Your task to perform on an android device: turn on the 12-hour format for clock Image 0: 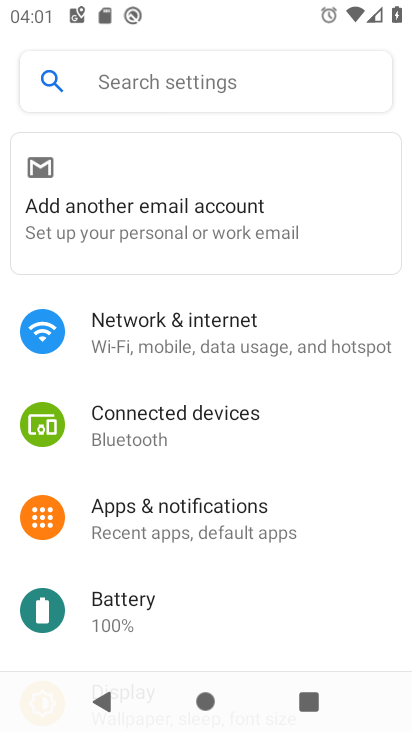
Step 0: press home button
Your task to perform on an android device: turn on the 12-hour format for clock Image 1: 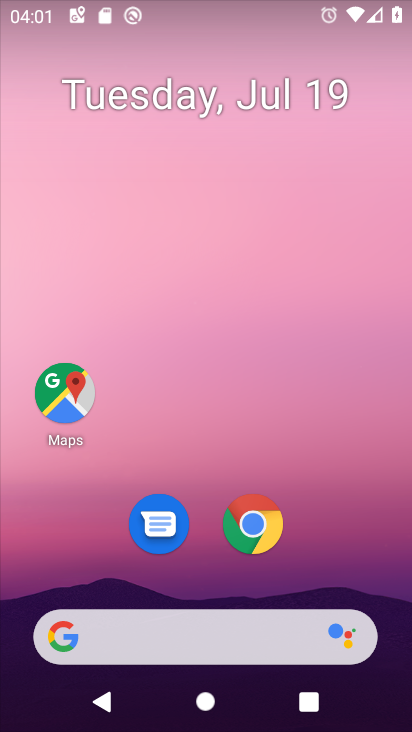
Step 1: drag from (330, 533) to (338, 111)
Your task to perform on an android device: turn on the 12-hour format for clock Image 2: 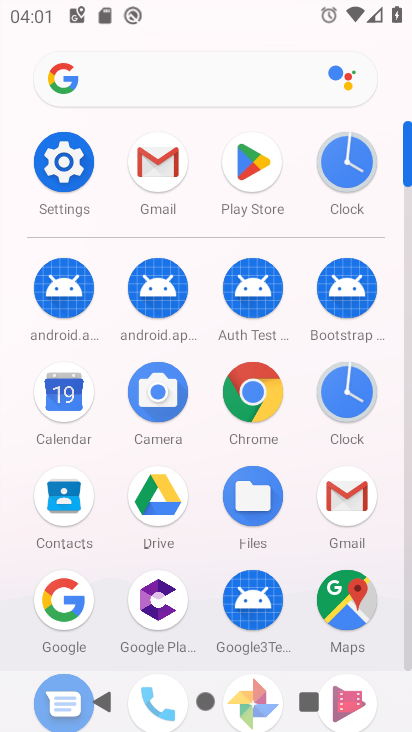
Step 2: click (344, 173)
Your task to perform on an android device: turn on the 12-hour format for clock Image 3: 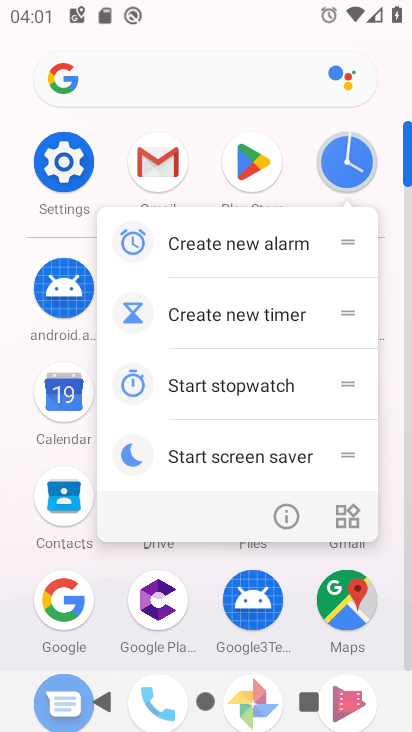
Step 3: click (344, 170)
Your task to perform on an android device: turn on the 12-hour format for clock Image 4: 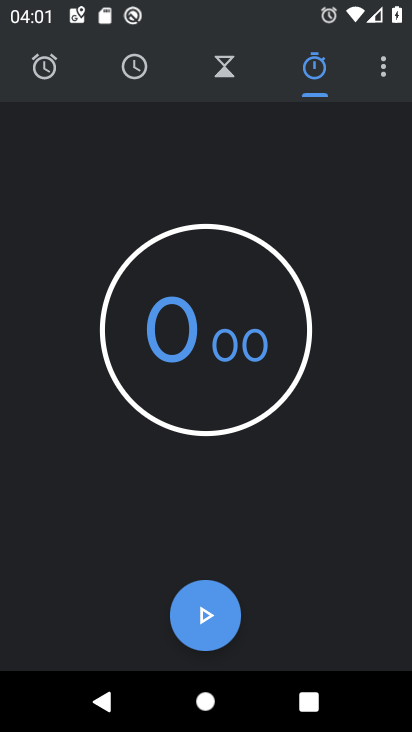
Step 4: click (387, 65)
Your task to perform on an android device: turn on the 12-hour format for clock Image 5: 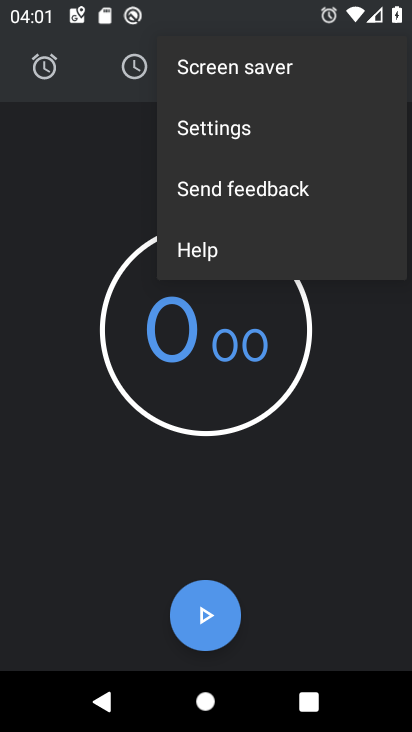
Step 5: click (304, 128)
Your task to perform on an android device: turn on the 12-hour format for clock Image 6: 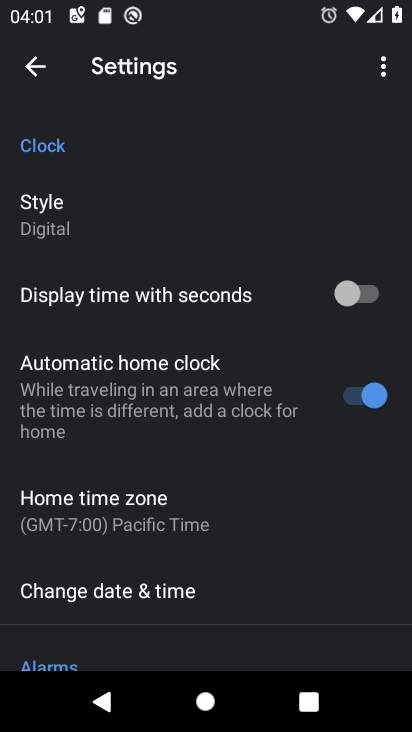
Step 6: click (267, 584)
Your task to perform on an android device: turn on the 12-hour format for clock Image 7: 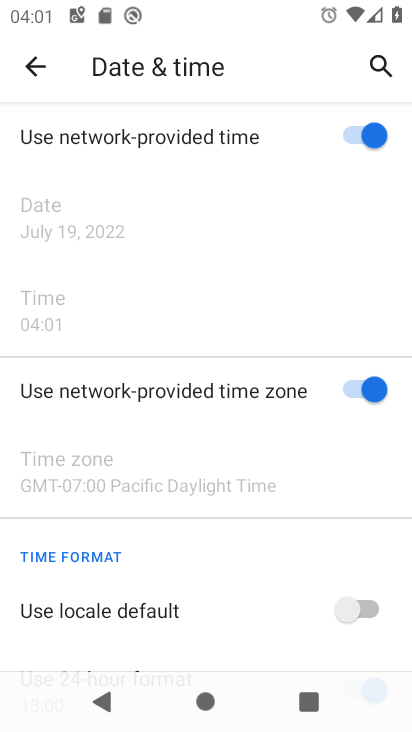
Step 7: drag from (270, 589) to (242, 332)
Your task to perform on an android device: turn on the 12-hour format for clock Image 8: 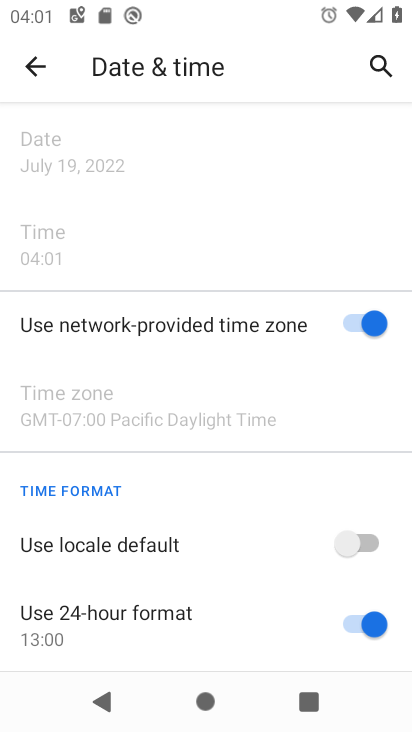
Step 8: click (361, 615)
Your task to perform on an android device: turn on the 12-hour format for clock Image 9: 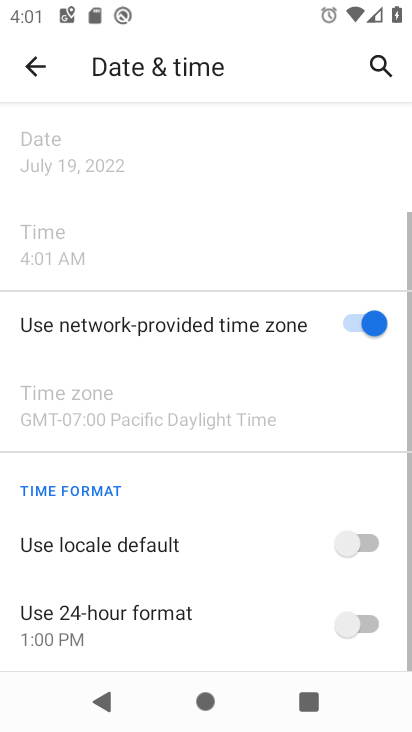
Step 9: click (361, 535)
Your task to perform on an android device: turn on the 12-hour format for clock Image 10: 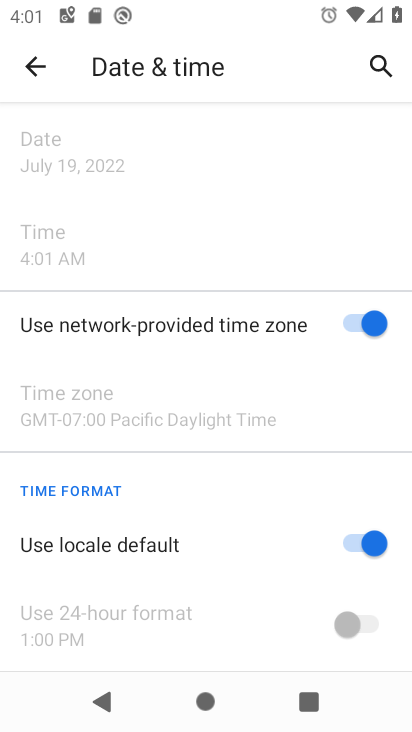
Step 10: task complete